Your task to perform on an android device: turn on data saver in the chrome app Image 0: 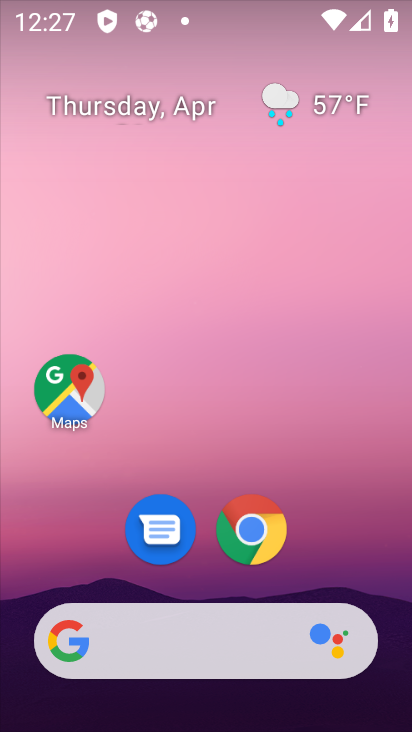
Step 0: click (242, 534)
Your task to perform on an android device: turn on data saver in the chrome app Image 1: 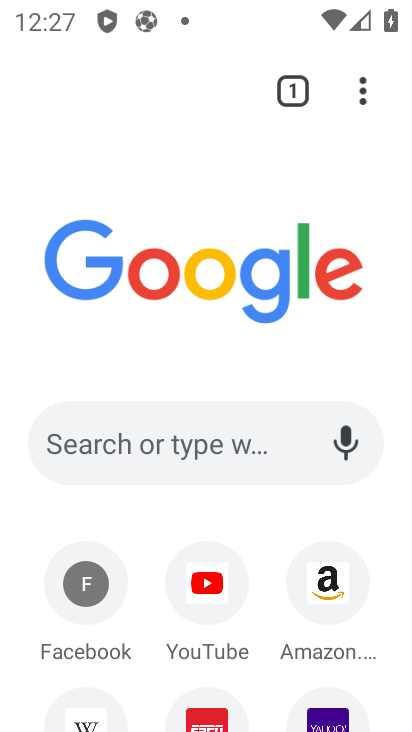
Step 1: drag from (366, 94) to (134, 566)
Your task to perform on an android device: turn on data saver in the chrome app Image 2: 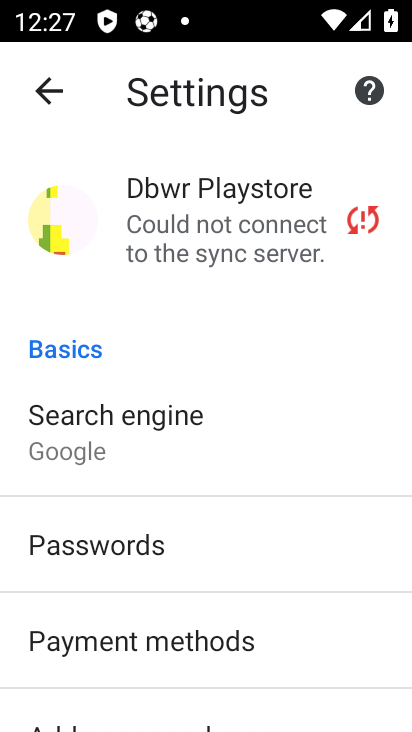
Step 2: drag from (153, 673) to (75, 10)
Your task to perform on an android device: turn on data saver in the chrome app Image 3: 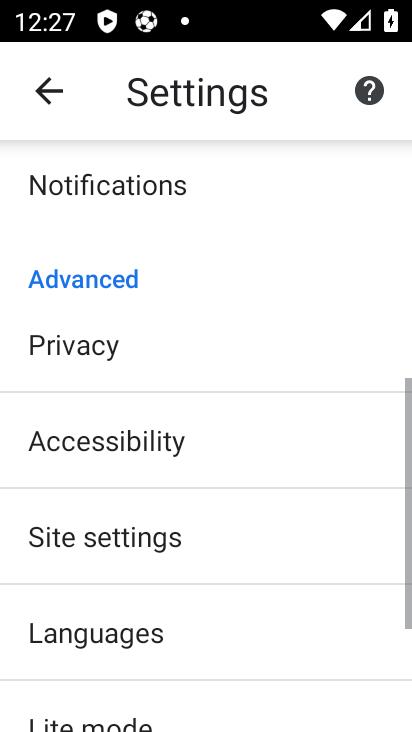
Step 3: drag from (159, 523) to (105, 2)
Your task to perform on an android device: turn on data saver in the chrome app Image 4: 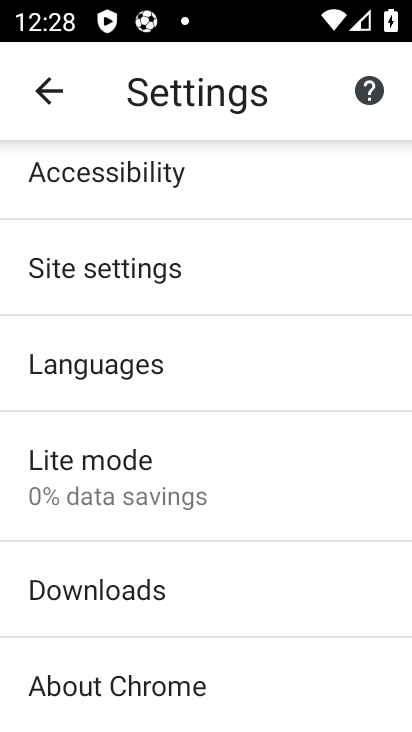
Step 4: click (182, 482)
Your task to perform on an android device: turn on data saver in the chrome app Image 5: 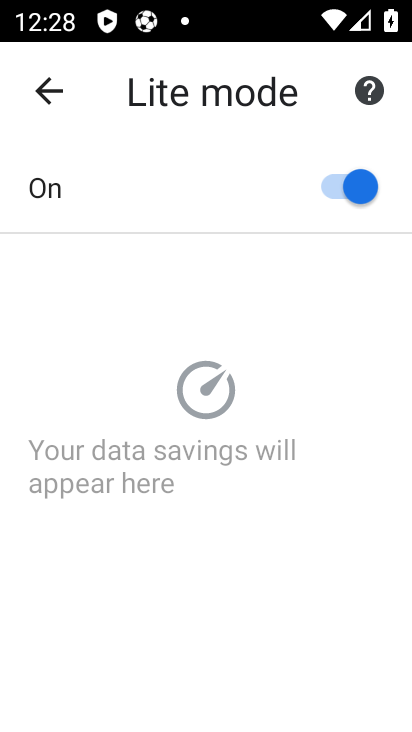
Step 5: task complete